Your task to perform on an android device: turn on sleep mode Image 0: 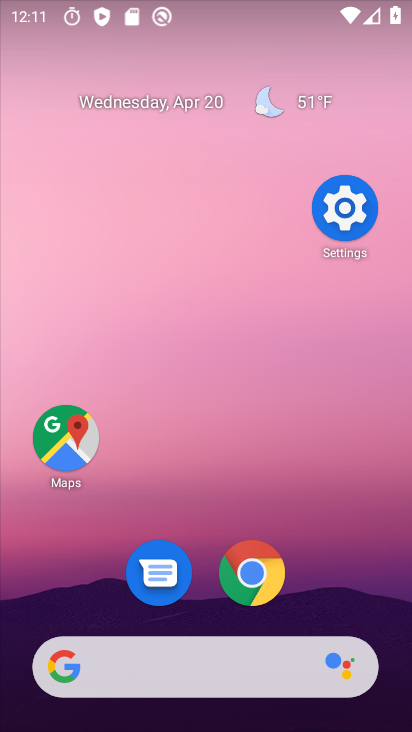
Step 0: click (357, 229)
Your task to perform on an android device: turn on sleep mode Image 1: 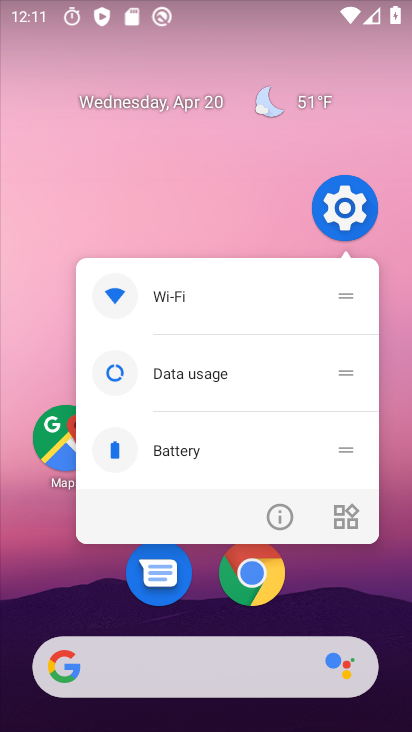
Step 1: click (355, 222)
Your task to perform on an android device: turn on sleep mode Image 2: 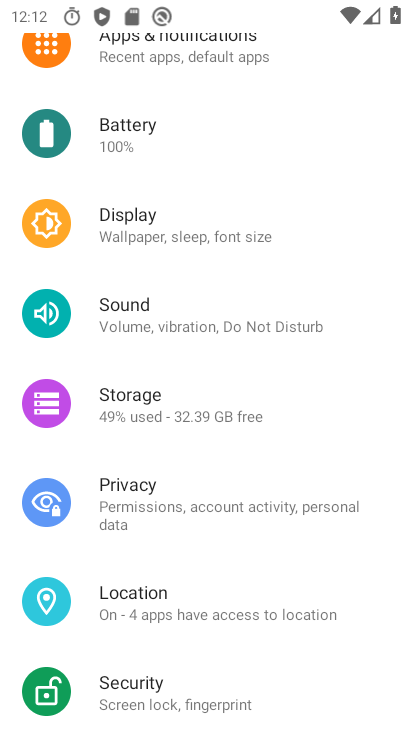
Step 2: drag from (211, 214) to (214, 540)
Your task to perform on an android device: turn on sleep mode Image 3: 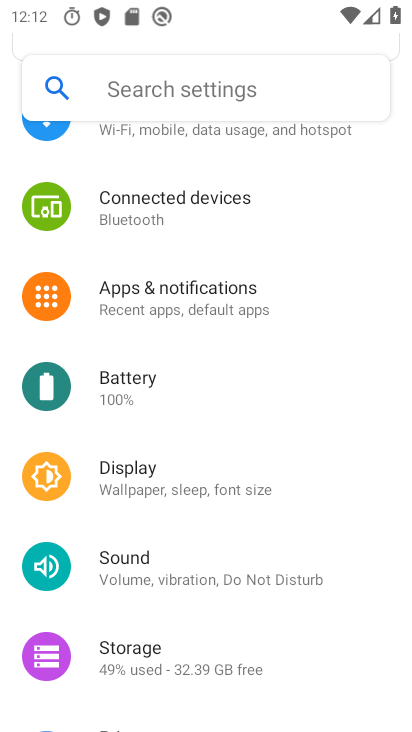
Step 3: drag from (354, 202) to (356, 280)
Your task to perform on an android device: turn on sleep mode Image 4: 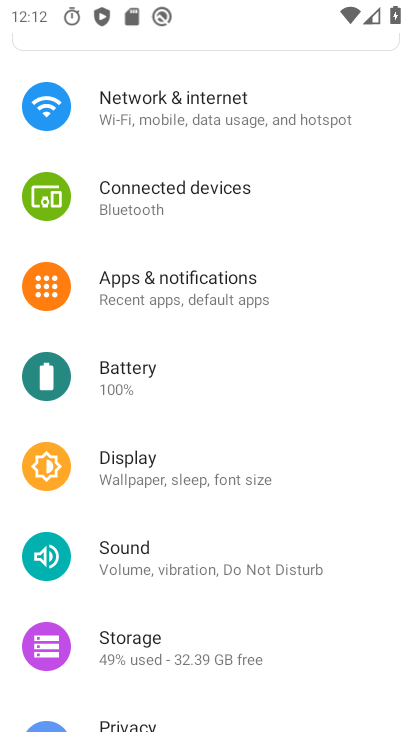
Step 4: click (257, 472)
Your task to perform on an android device: turn on sleep mode Image 5: 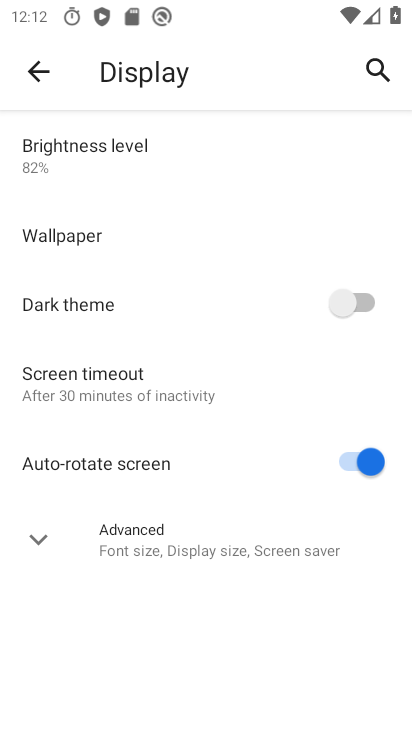
Step 5: click (24, 537)
Your task to perform on an android device: turn on sleep mode Image 6: 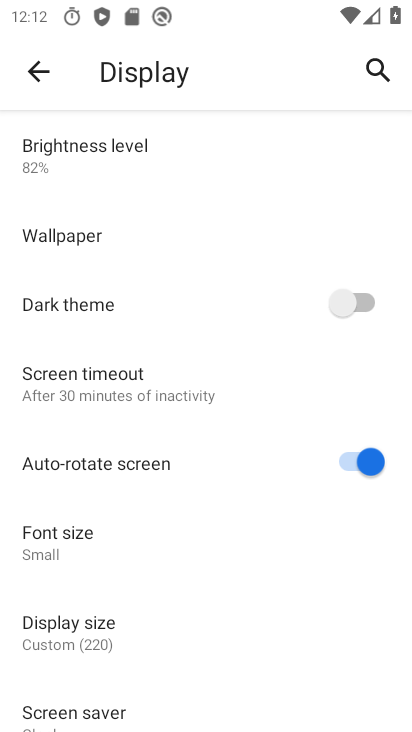
Step 6: task complete